Your task to perform on an android device: Add "logitech g pro" to the cart on target, then select checkout. Image 0: 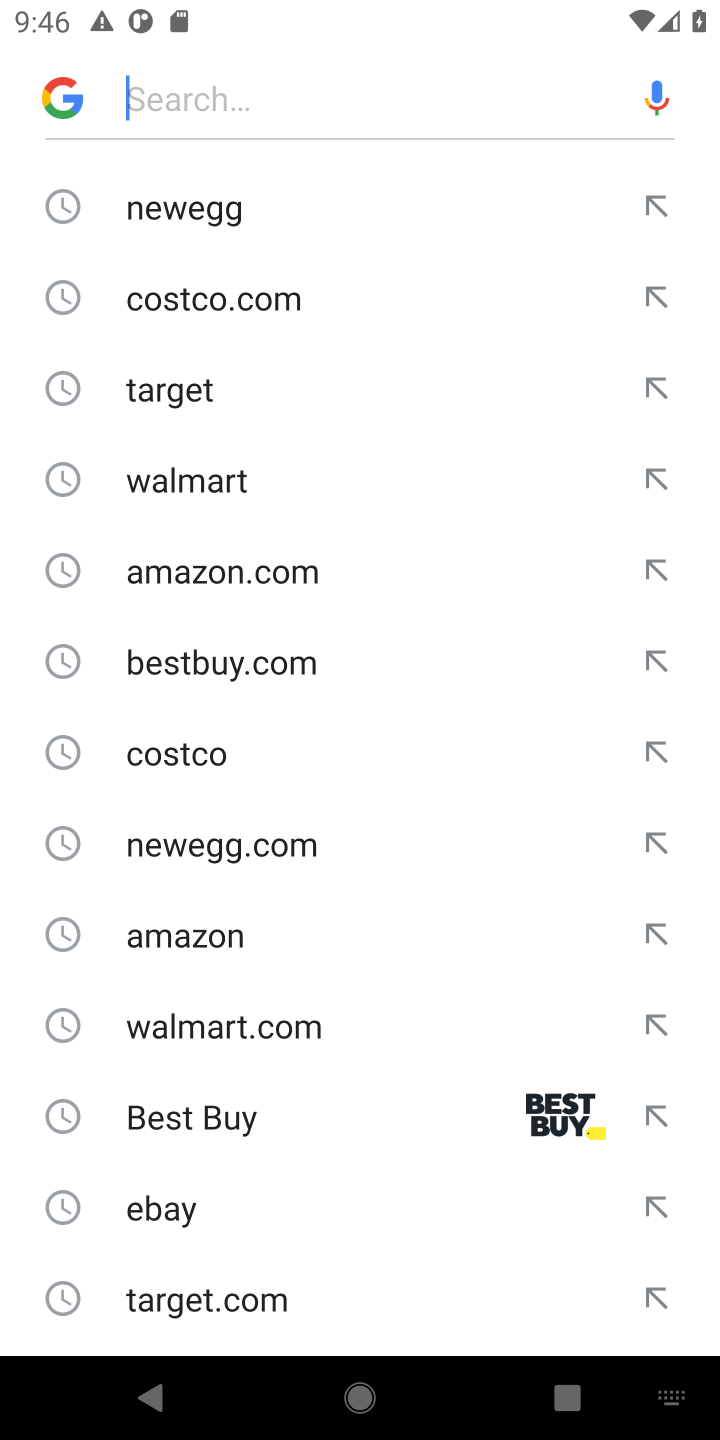
Step 0: click (245, 386)
Your task to perform on an android device: Add "logitech g pro" to the cart on target, then select checkout. Image 1: 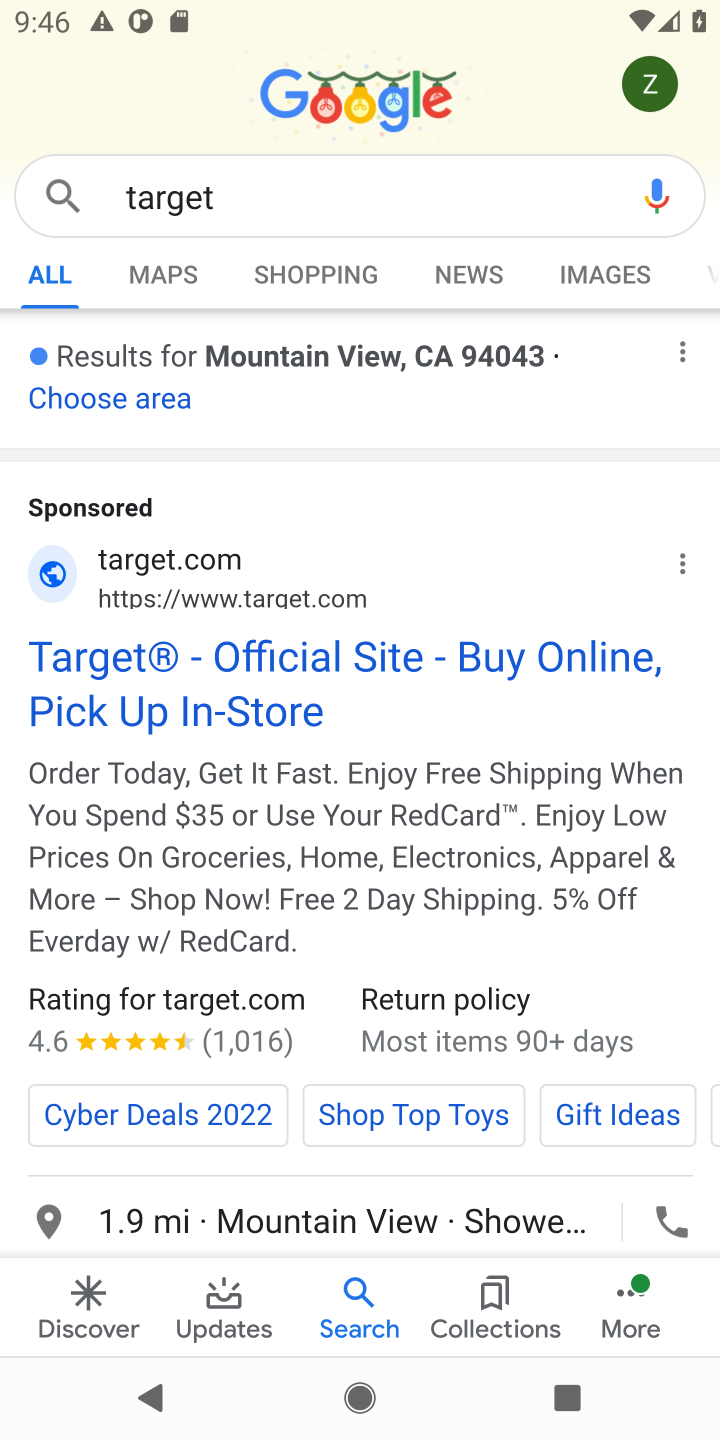
Step 1: click (362, 673)
Your task to perform on an android device: Add "logitech g pro" to the cart on target, then select checkout. Image 2: 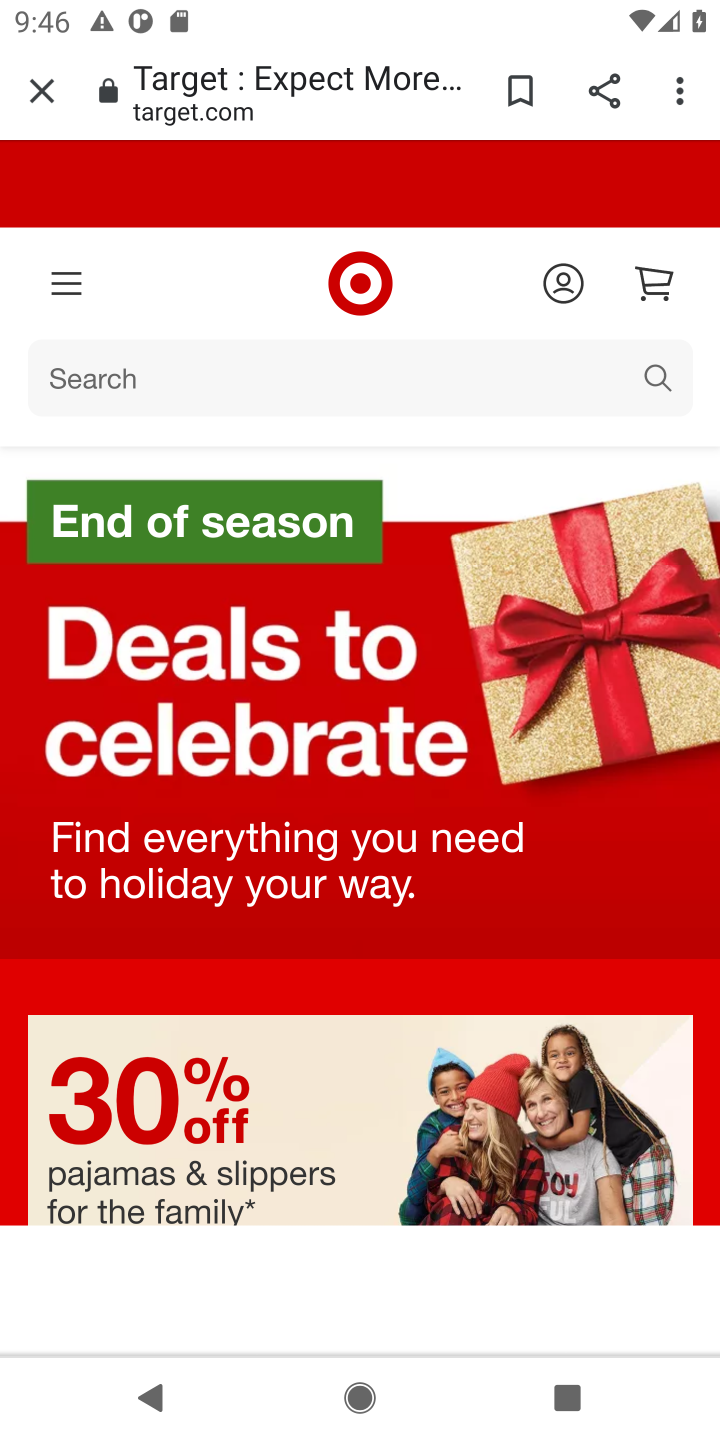
Step 2: click (79, 358)
Your task to perform on an android device: Add "logitech g pro" to the cart on target, then select checkout. Image 3: 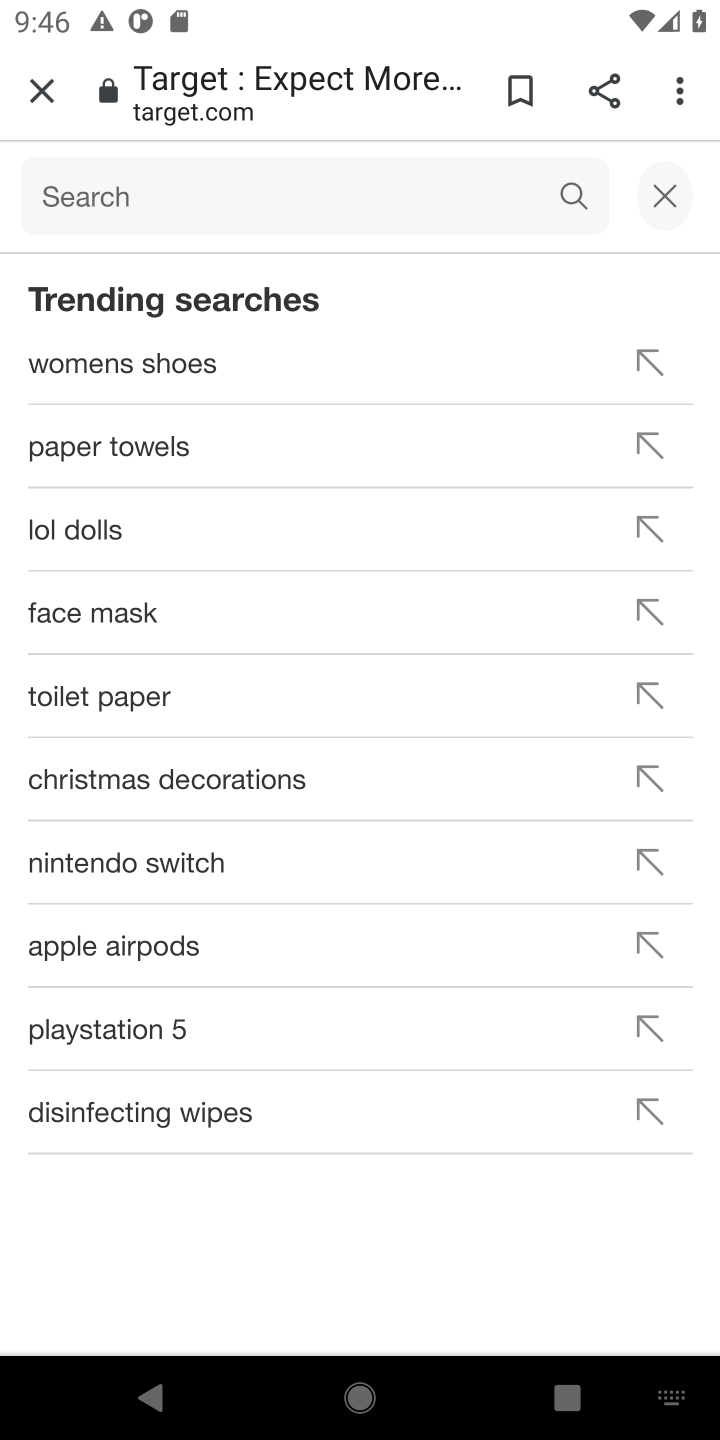
Step 3: type "logitech g pro"
Your task to perform on an android device: Add "logitech g pro" to the cart on target, then select checkout. Image 4: 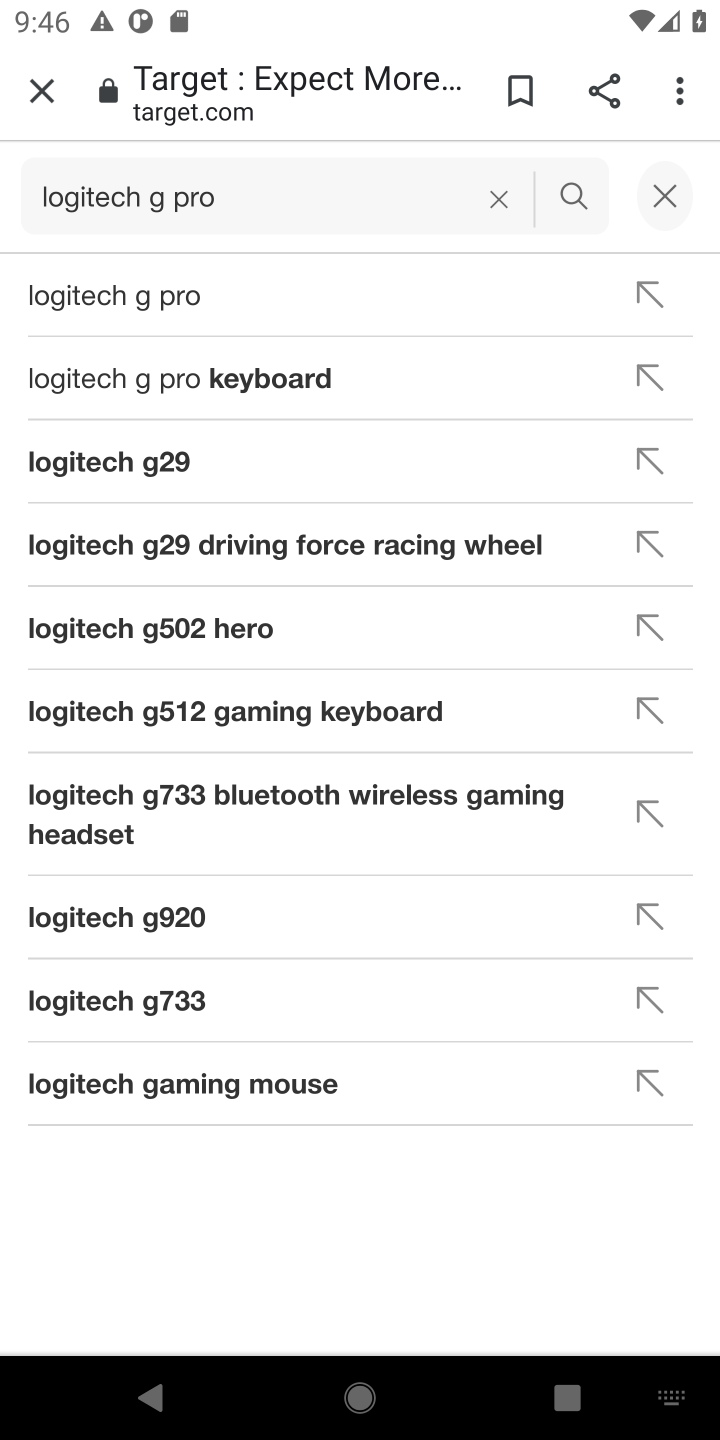
Step 4: click (66, 297)
Your task to perform on an android device: Add "logitech g pro" to the cart on target, then select checkout. Image 5: 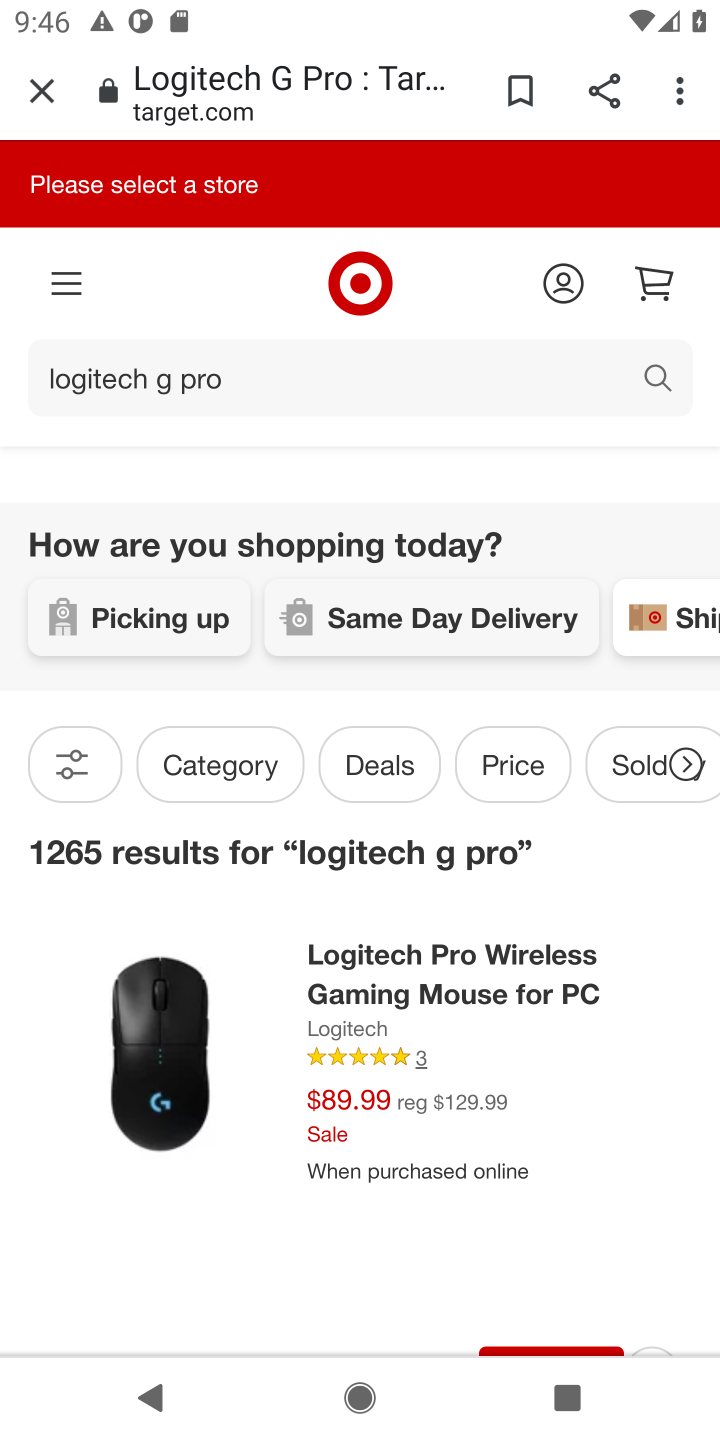
Step 5: drag from (556, 1254) to (647, 10)
Your task to perform on an android device: Add "logitech g pro" to the cart on target, then select checkout. Image 6: 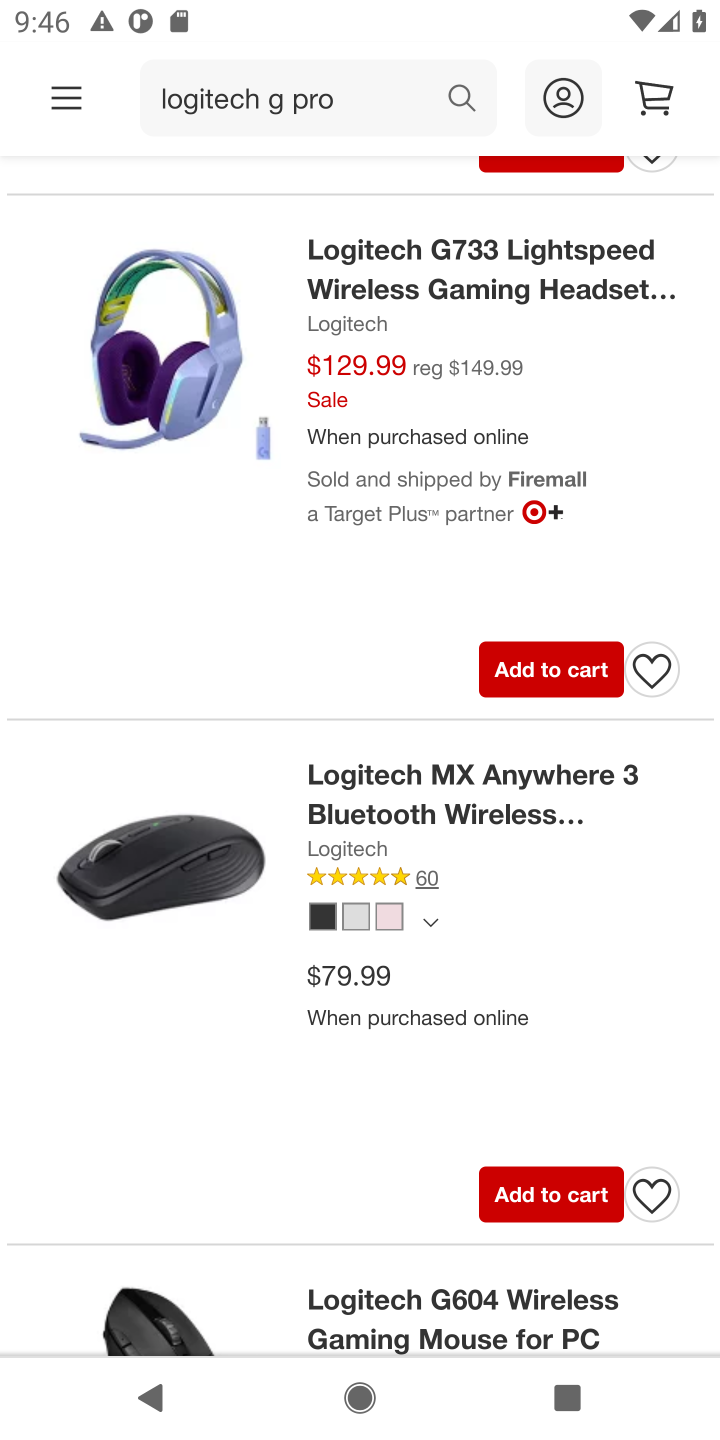
Step 6: drag from (554, 1098) to (715, 258)
Your task to perform on an android device: Add "logitech g pro" to the cart on target, then select checkout. Image 7: 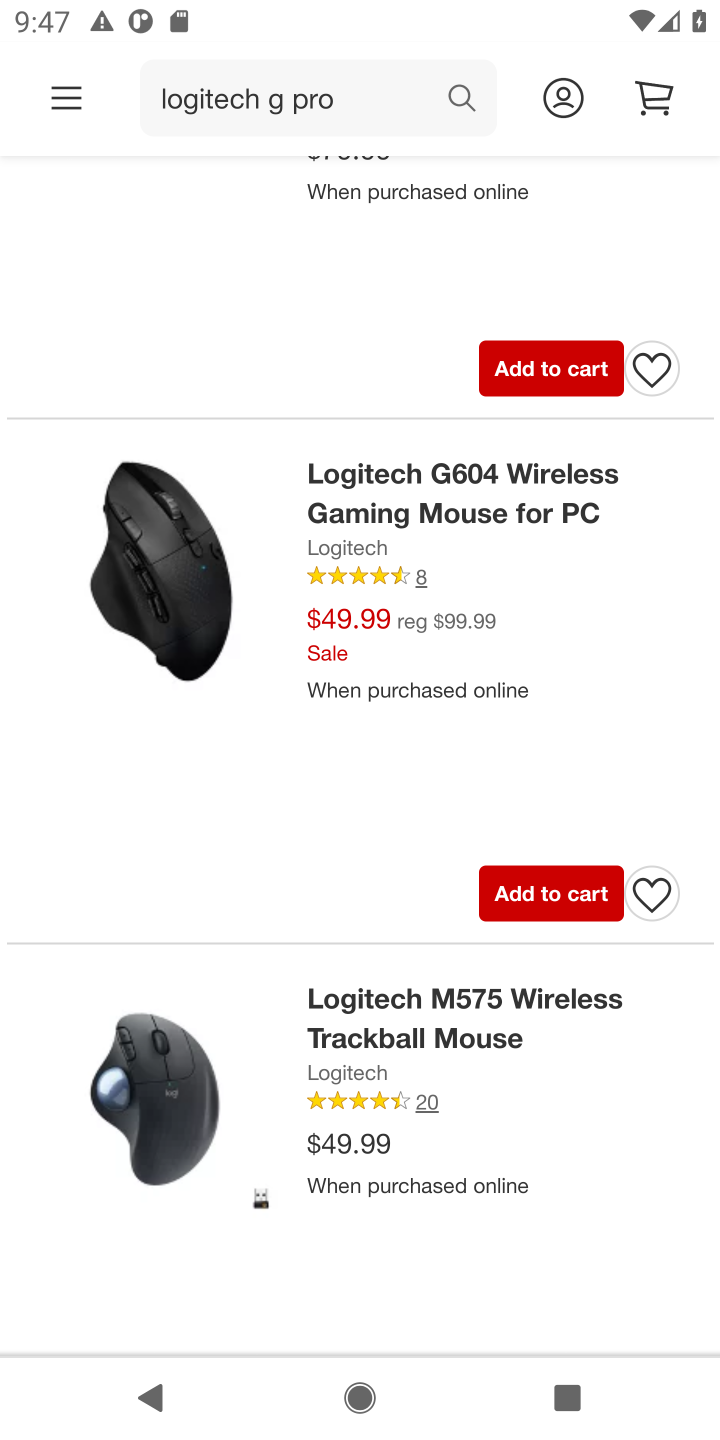
Step 7: drag from (488, 1273) to (558, 284)
Your task to perform on an android device: Add "logitech g pro" to the cart on target, then select checkout. Image 8: 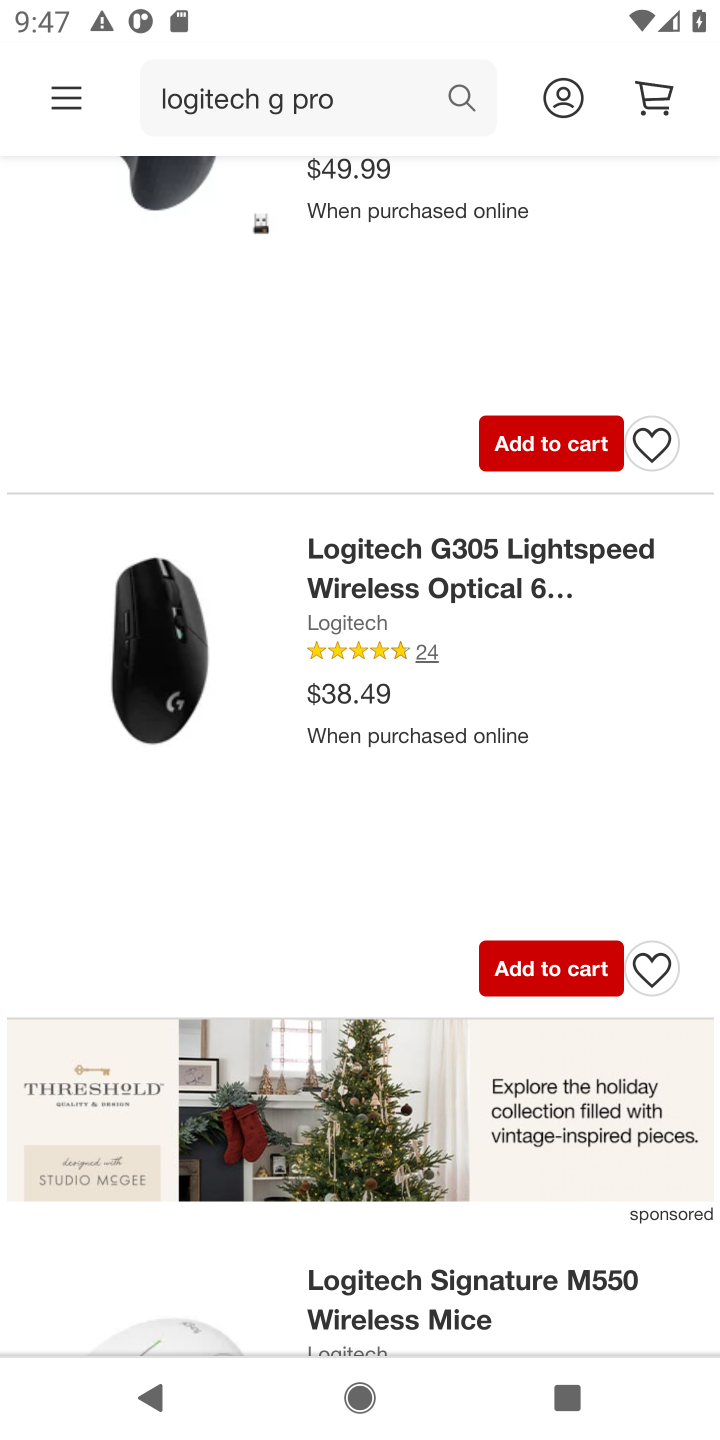
Step 8: drag from (325, 267) to (170, 1373)
Your task to perform on an android device: Add "logitech g pro" to the cart on target, then select checkout. Image 9: 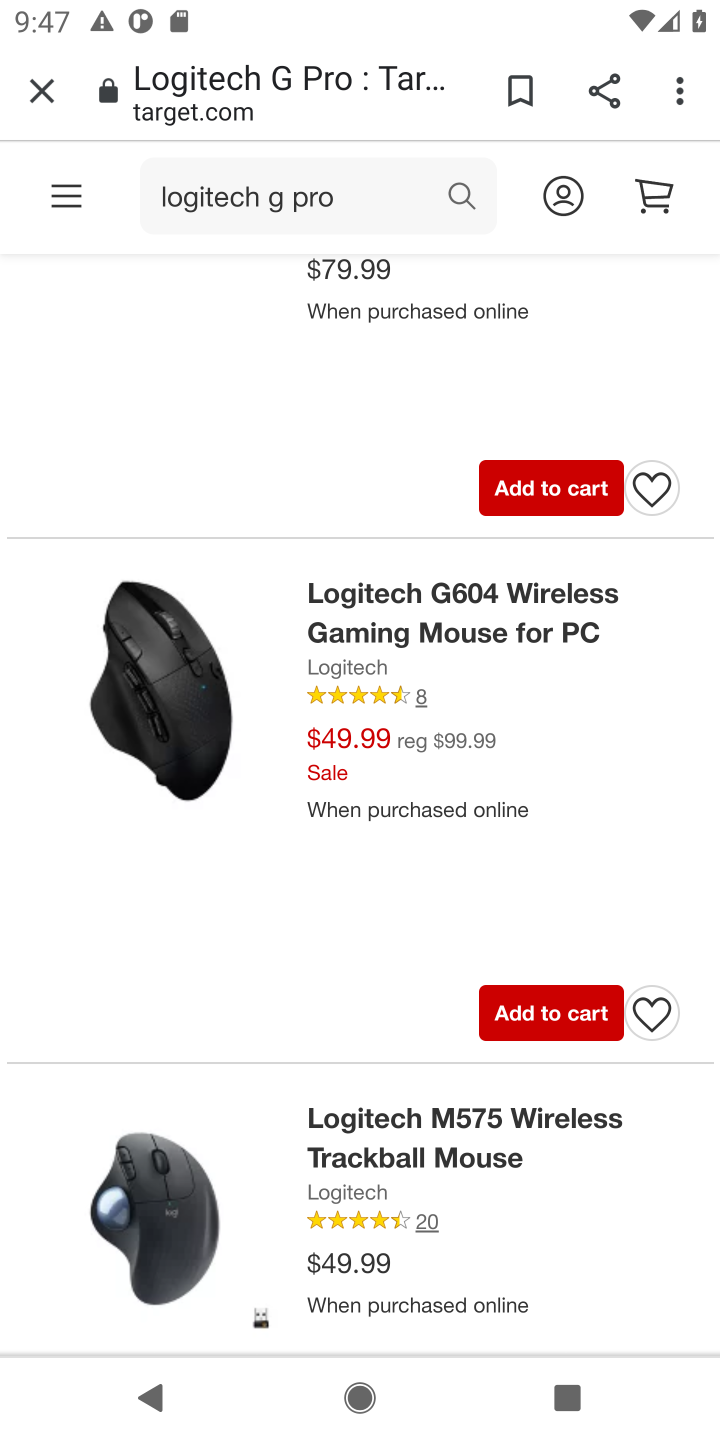
Step 9: drag from (499, 348) to (499, 960)
Your task to perform on an android device: Add "logitech g pro" to the cart on target, then select checkout. Image 10: 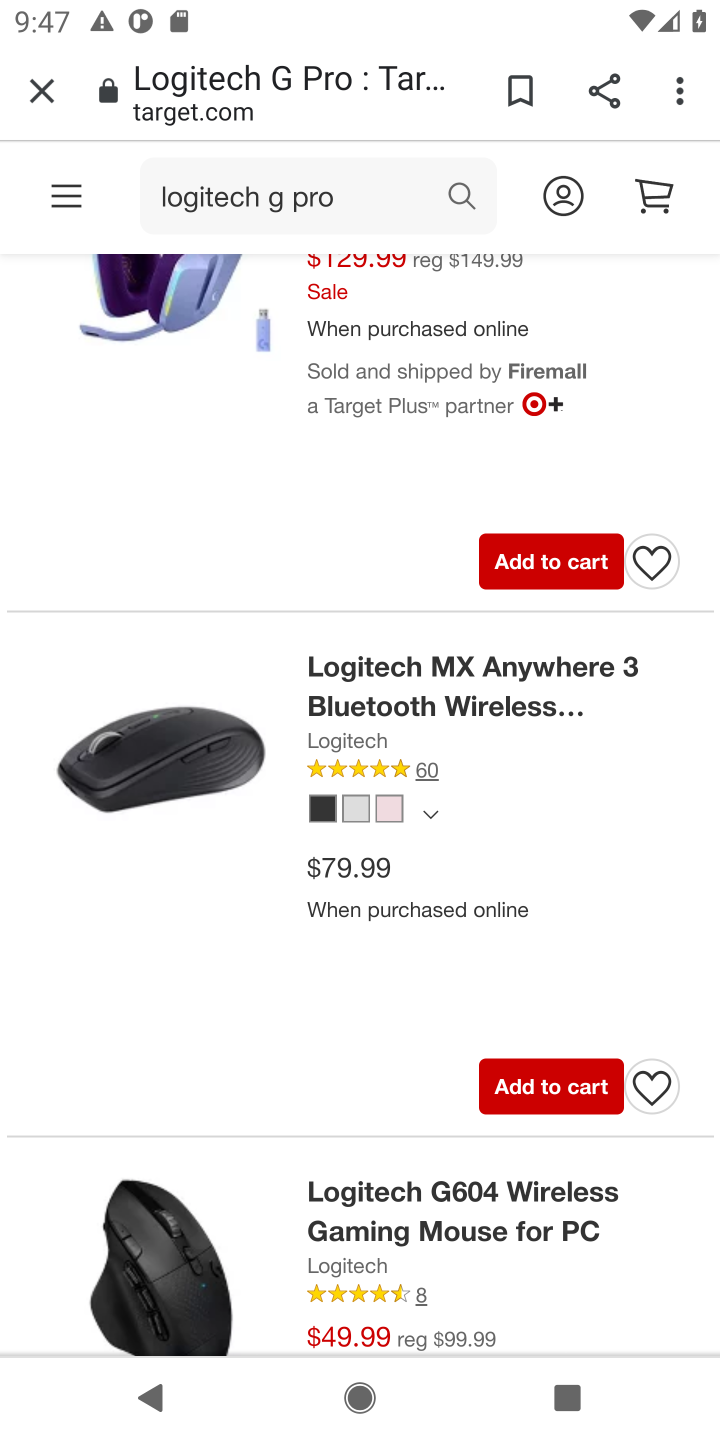
Step 10: drag from (575, 282) to (716, 1205)
Your task to perform on an android device: Add "logitech g pro" to the cart on target, then select checkout. Image 11: 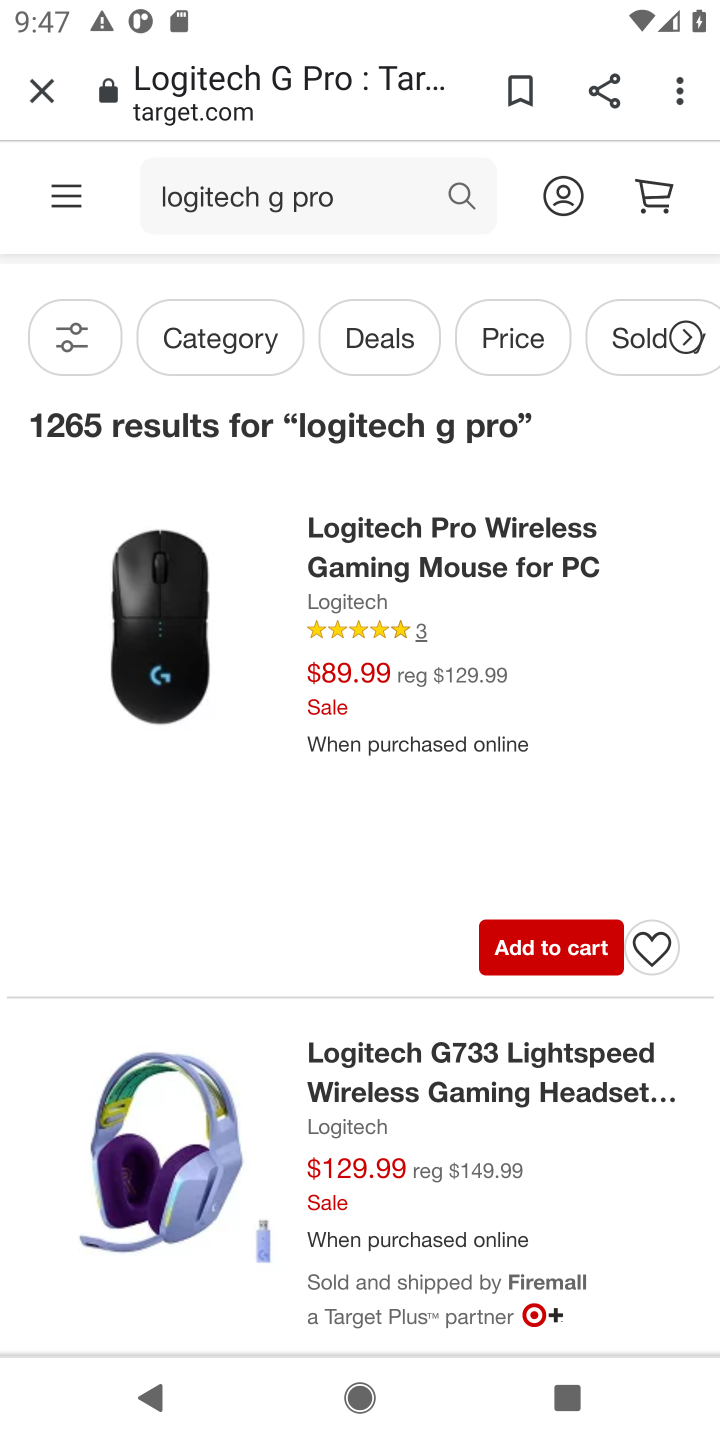
Step 11: click (557, 935)
Your task to perform on an android device: Add "logitech g pro" to the cart on target, then select checkout. Image 12: 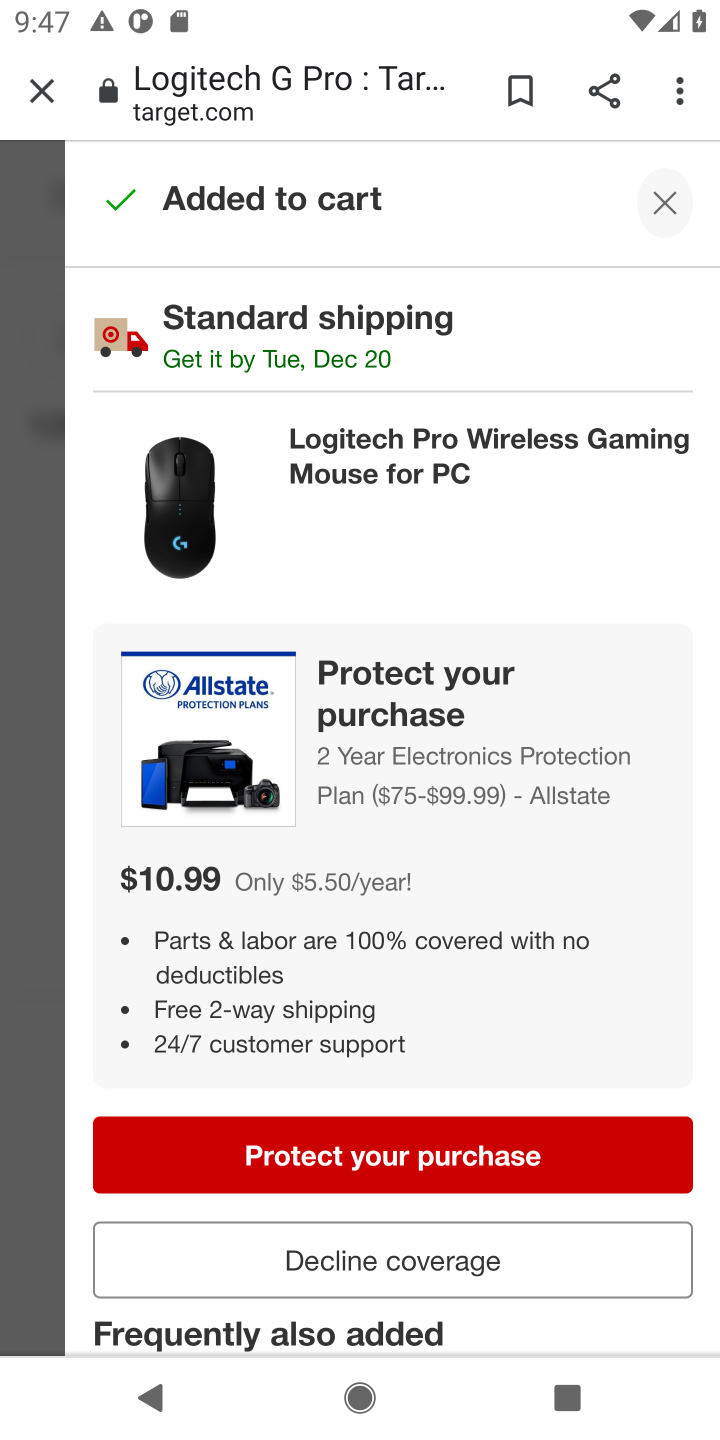
Step 12: task complete